Your task to perform on an android device: Go to internet settings Image 0: 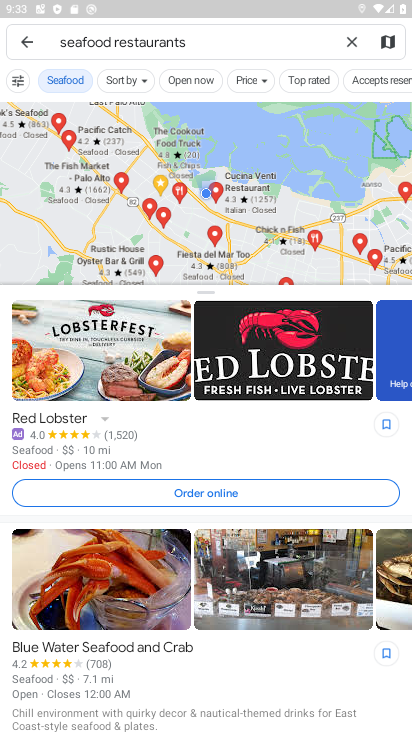
Step 0: press home button
Your task to perform on an android device: Go to internet settings Image 1: 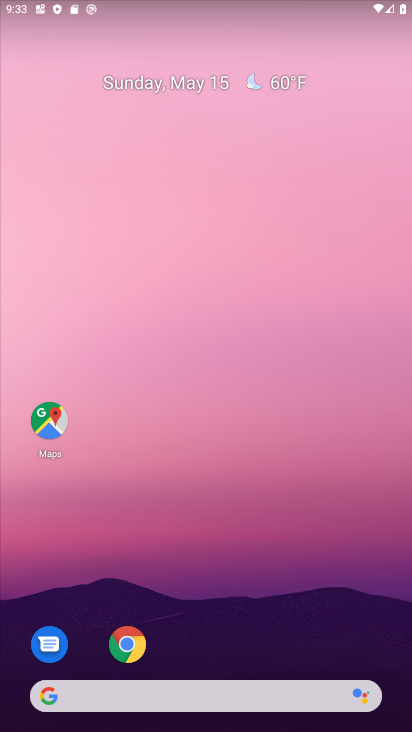
Step 1: drag from (143, 681) to (200, 334)
Your task to perform on an android device: Go to internet settings Image 2: 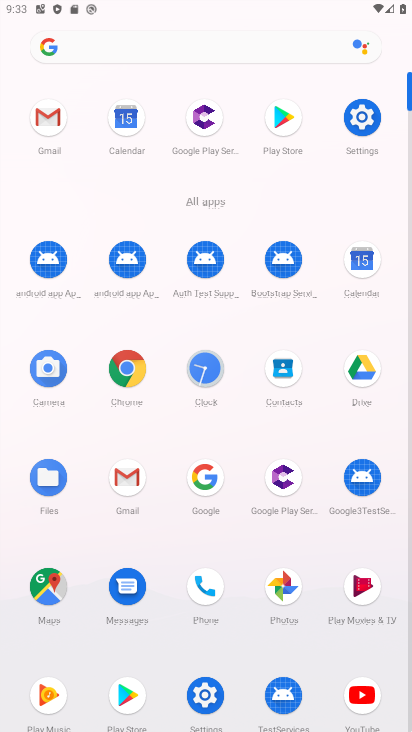
Step 2: click (360, 120)
Your task to perform on an android device: Go to internet settings Image 3: 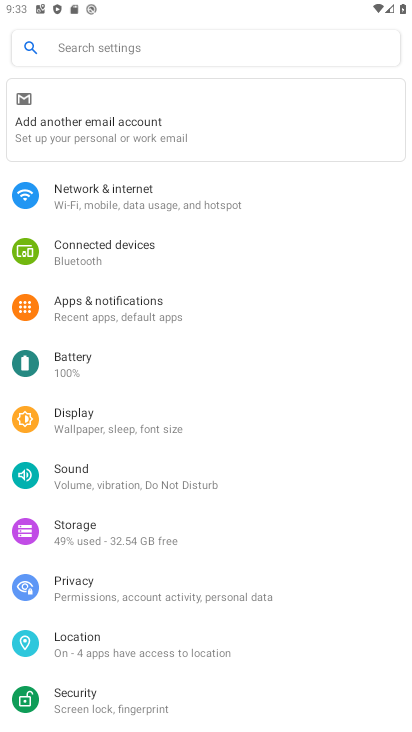
Step 3: click (110, 204)
Your task to perform on an android device: Go to internet settings Image 4: 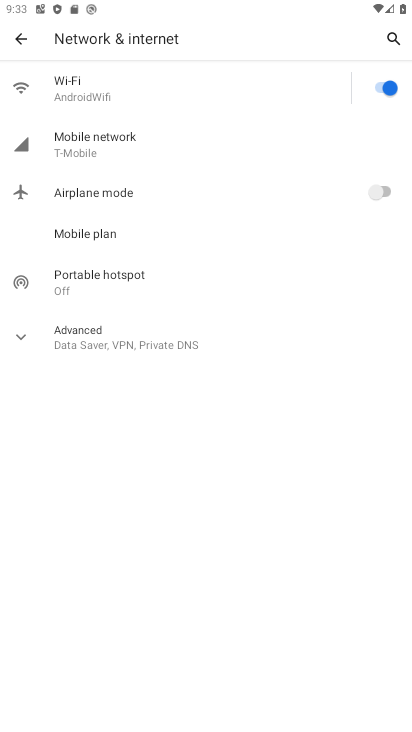
Step 4: click (112, 330)
Your task to perform on an android device: Go to internet settings Image 5: 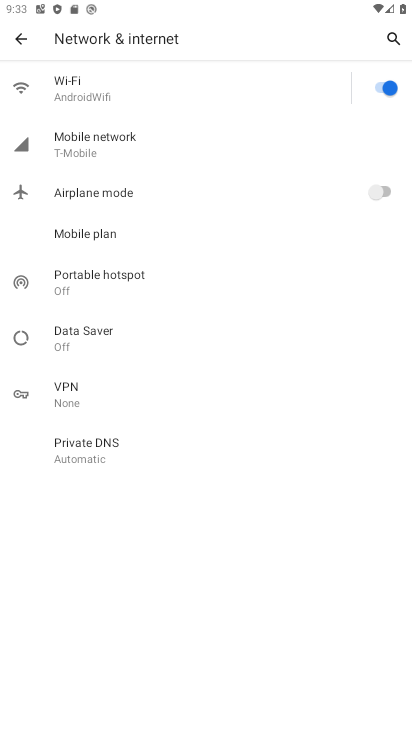
Step 5: task complete